Your task to perform on an android device: Open calendar and show me the fourth week of next month Image 0: 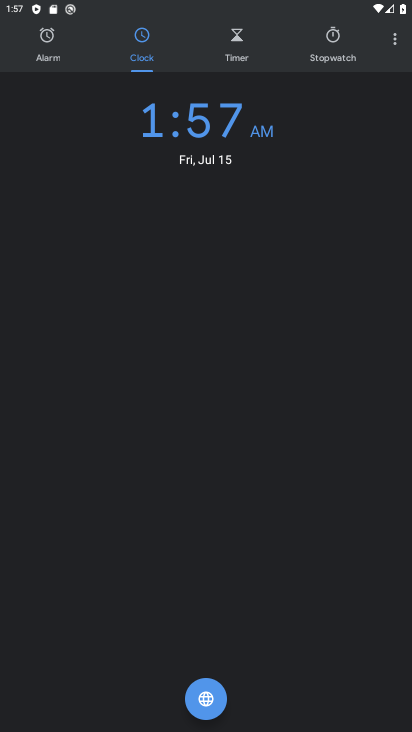
Step 0: press back button
Your task to perform on an android device: Open calendar and show me the fourth week of next month Image 1: 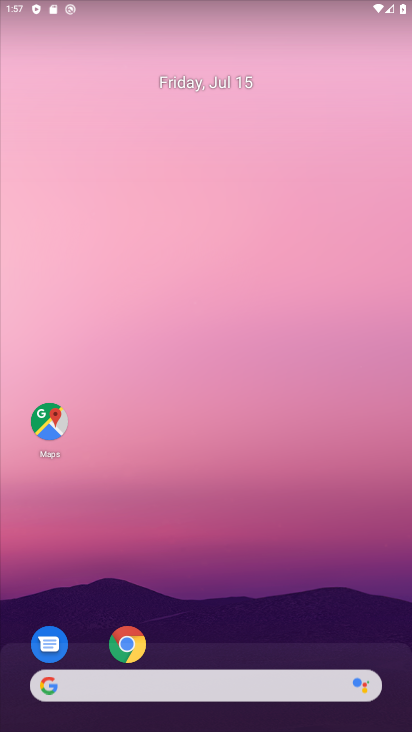
Step 1: drag from (255, 516) to (355, 41)
Your task to perform on an android device: Open calendar and show me the fourth week of next month Image 2: 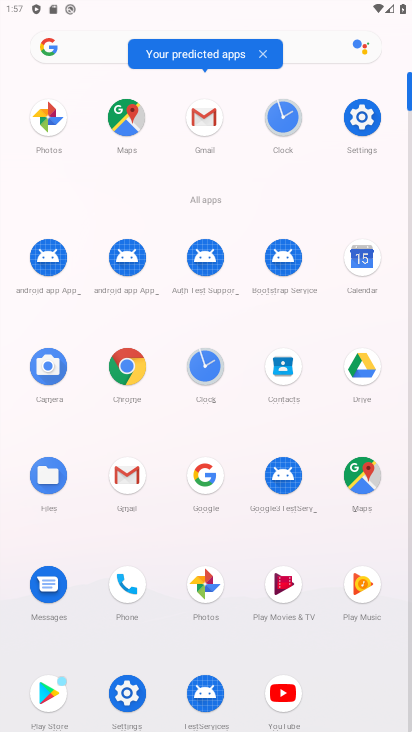
Step 2: click (359, 263)
Your task to perform on an android device: Open calendar and show me the fourth week of next month Image 3: 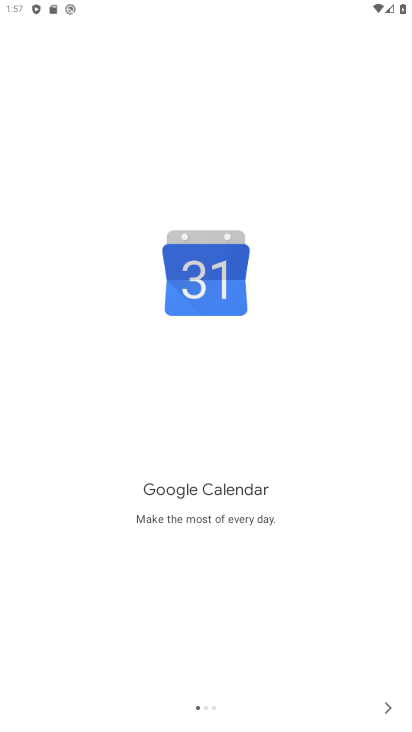
Step 3: click (385, 708)
Your task to perform on an android device: Open calendar and show me the fourth week of next month Image 4: 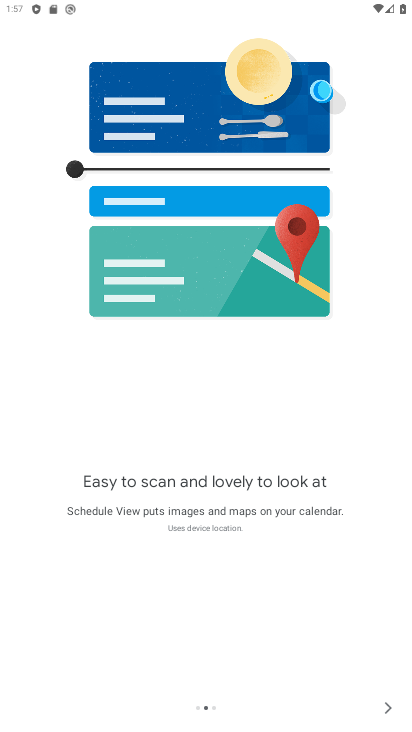
Step 4: click (386, 707)
Your task to perform on an android device: Open calendar and show me the fourth week of next month Image 5: 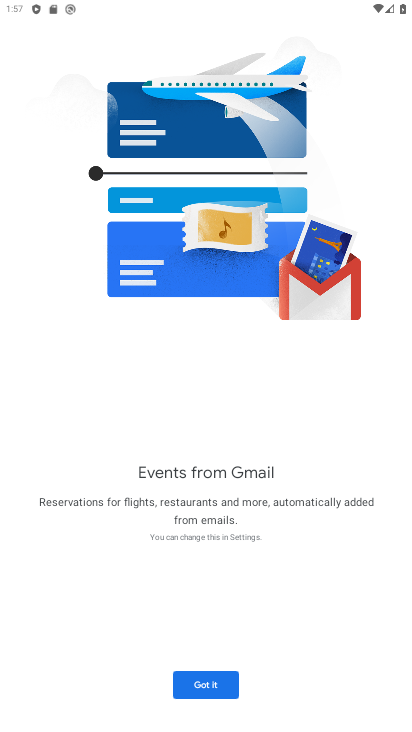
Step 5: click (224, 691)
Your task to perform on an android device: Open calendar and show me the fourth week of next month Image 6: 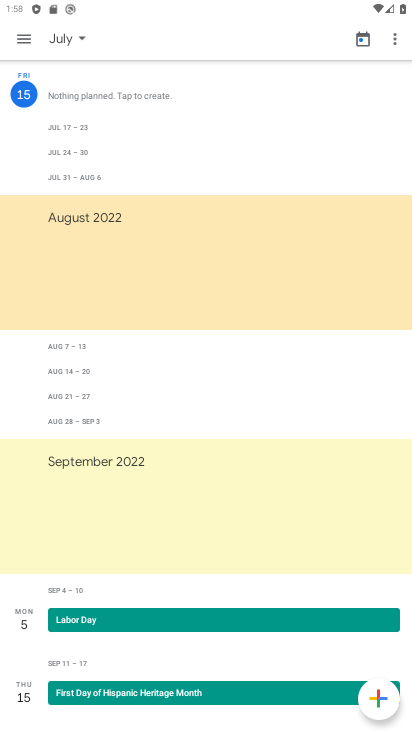
Step 6: click (69, 39)
Your task to perform on an android device: Open calendar and show me the fourth week of next month Image 7: 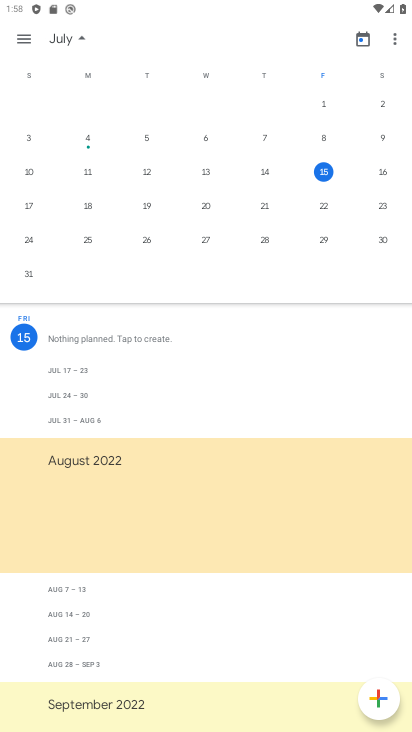
Step 7: drag from (364, 208) to (65, 154)
Your task to perform on an android device: Open calendar and show me the fourth week of next month Image 8: 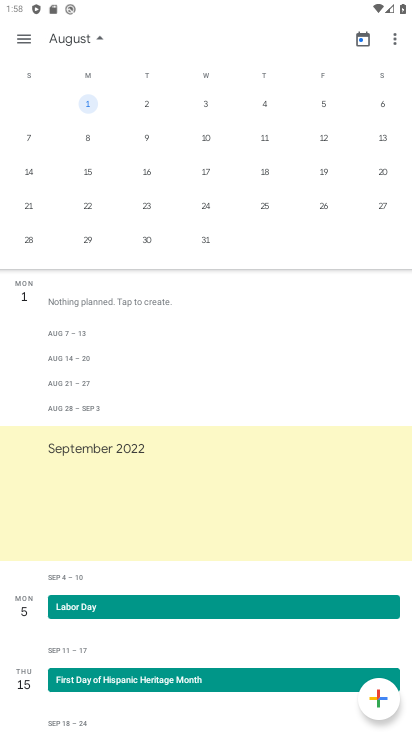
Step 8: click (87, 197)
Your task to perform on an android device: Open calendar and show me the fourth week of next month Image 9: 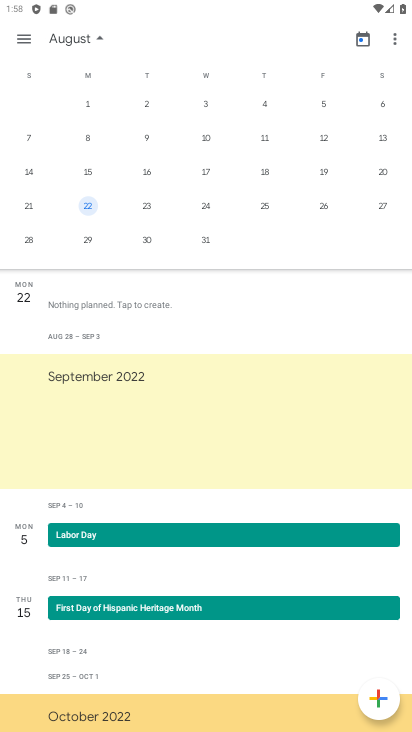
Step 9: task complete